Your task to perform on an android device: Go to CNN.com Image 0: 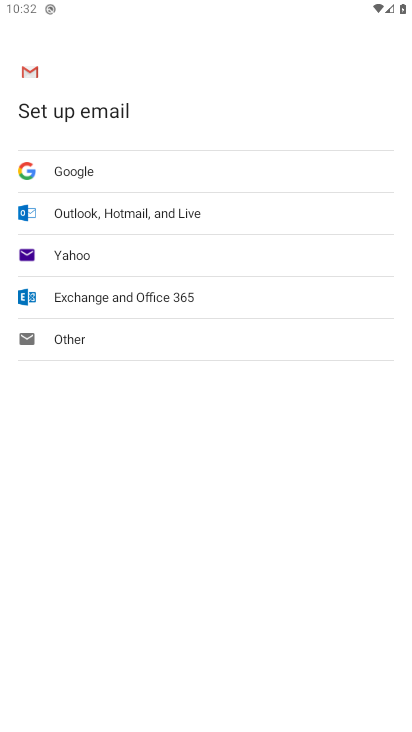
Step 0: press home button
Your task to perform on an android device: Go to CNN.com Image 1: 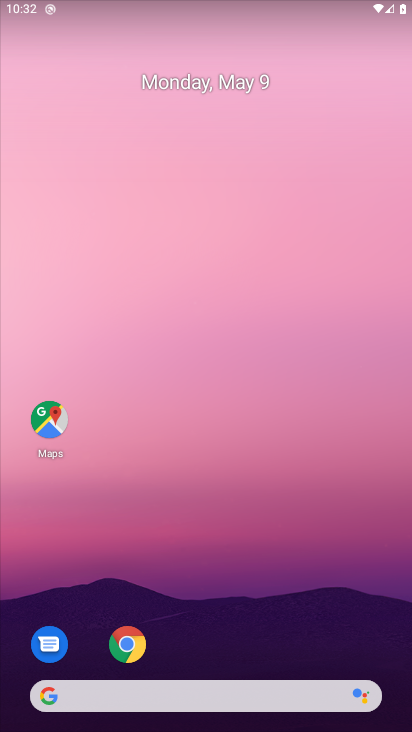
Step 1: click (106, 632)
Your task to perform on an android device: Go to CNN.com Image 2: 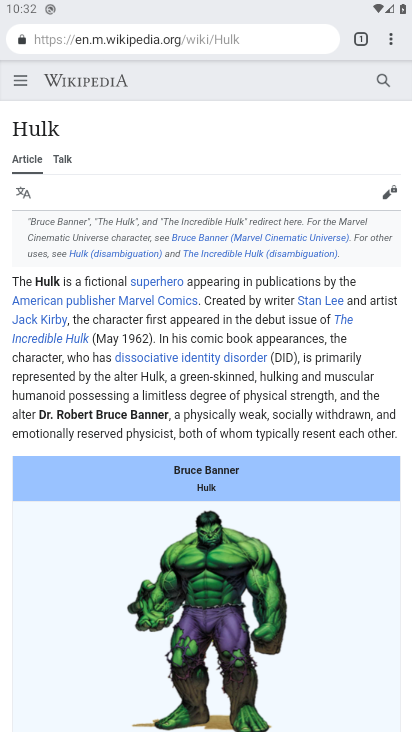
Step 2: click (196, 35)
Your task to perform on an android device: Go to CNN.com Image 3: 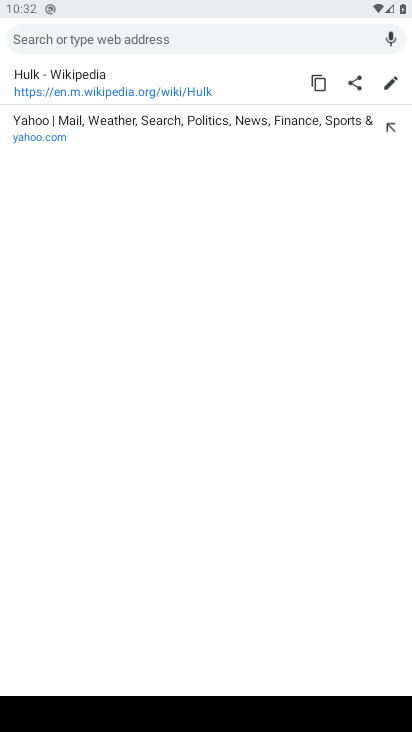
Step 3: type "CNN.com"
Your task to perform on an android device: Go to CNN.com Image 4: 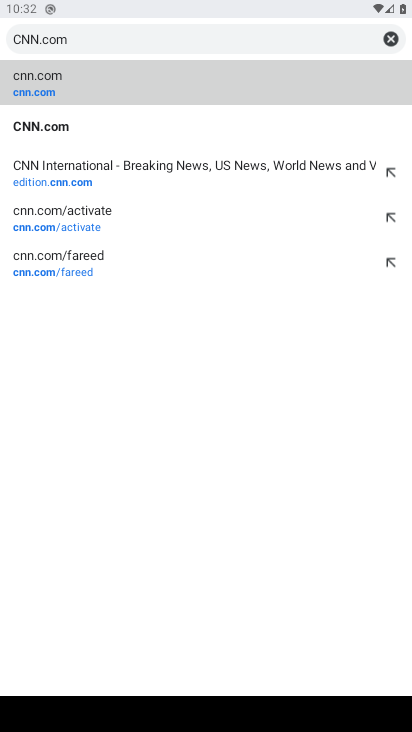
Step 4: click (71, 123)
Your task to perform on an android device: Go to CNN.com Image 5: 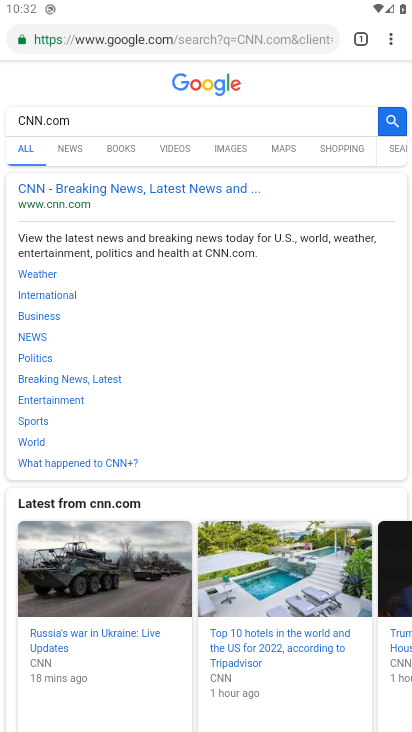
Step 5: task complete